Your task to perform on an android device: delete the emails in spam in the gmail app Image 0: 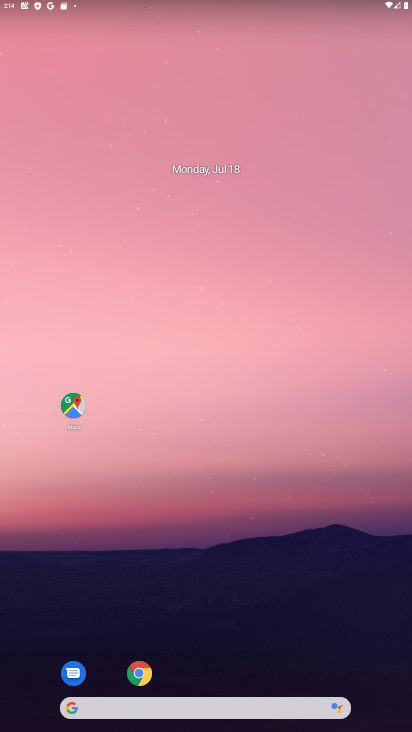
Step 0: drag from (229, 703) to (203, 128)
Your task to perform on an android device: delete the emails in spam in the gmail app Image 1: 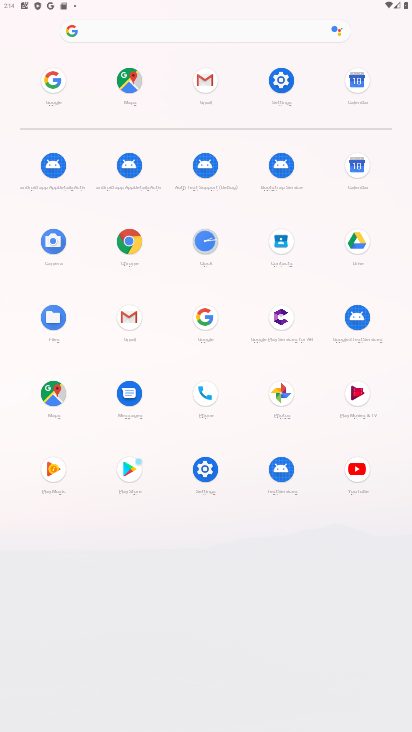
Step 1: click (204, 80)
Your task to perform on an android device: delete the emails in spam in the gmail app Image 2: 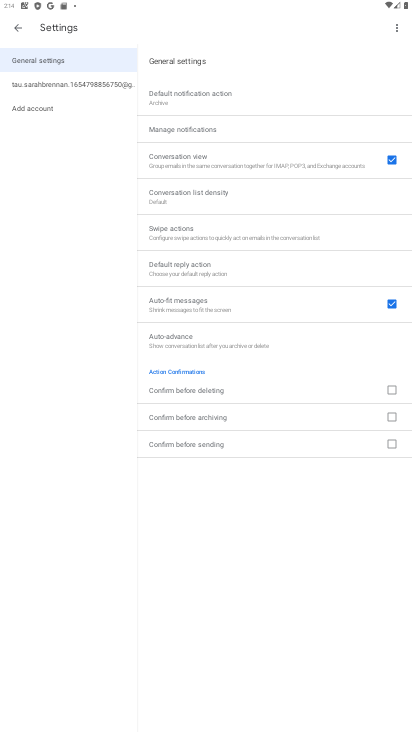
Step 2: press back button
Your task to perform on an android device: delete the emails in spam in the gmail app Image 3: 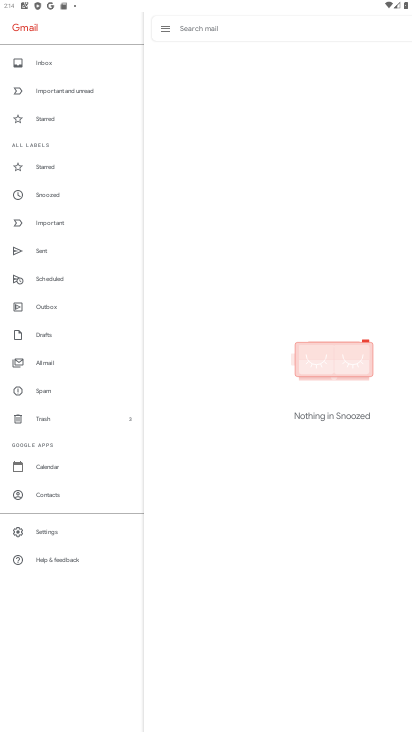
Step 3: click (39, 391)
Your task to perform on an android device: delete the emails in spam in the gmail app Image 4: 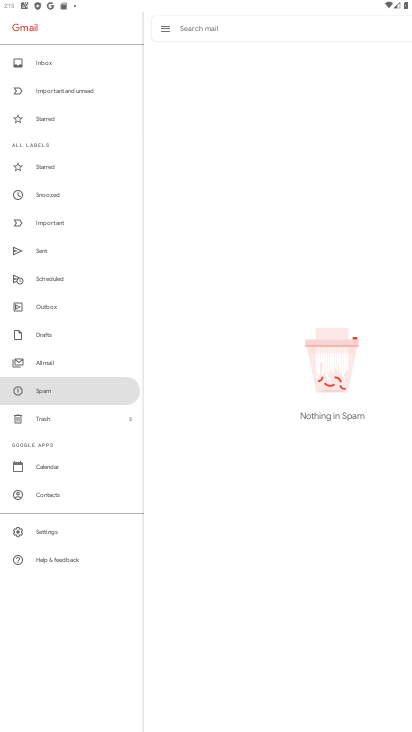
Step 4: task complete